Your task to perform on an android device: manage bookmarks in the chrome app Image 0: 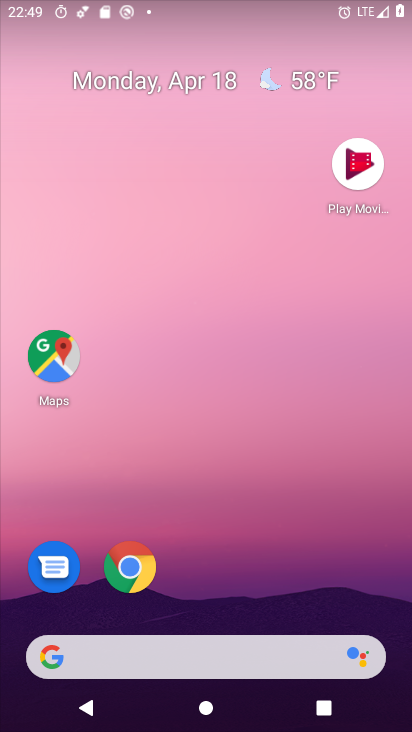
Step 0: click (219, 185)
Your task to perform on an android device: manage bookmarks in the chrome app Image 1: 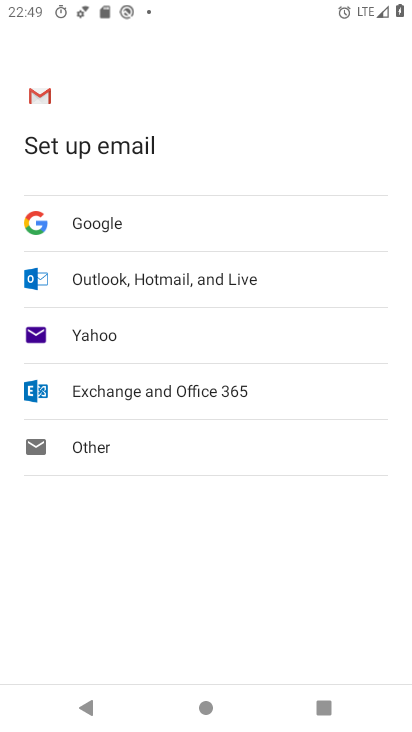
Step 1: press home button
Your task to perform on an android device: manage bookmarks in the chrome app Image 2: 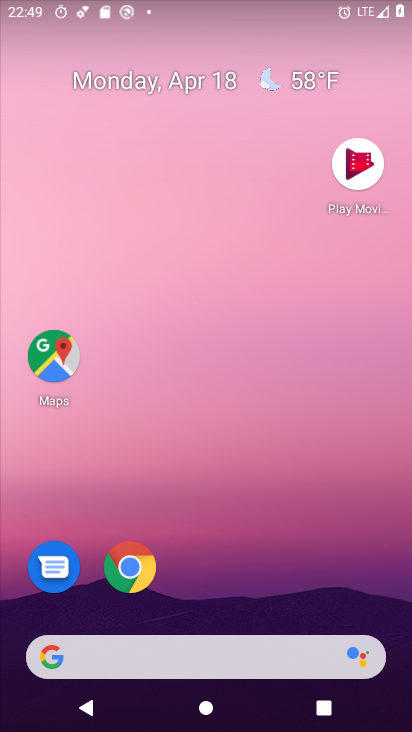
Step 2: drag from (183, 631) to (188, 163)
Your task to perform on an android device: manage bookmarks in the chrome app Image 3: 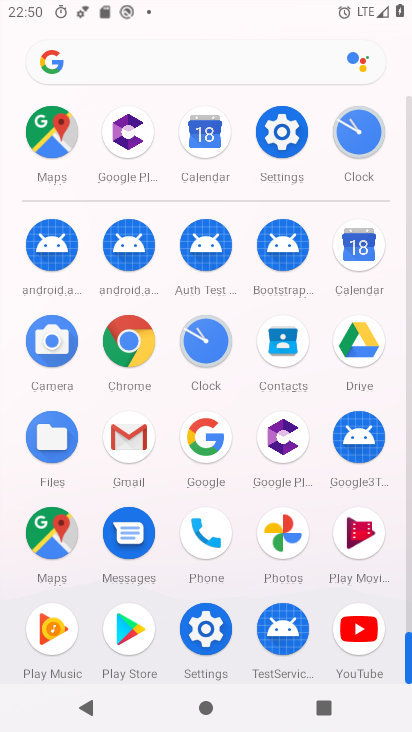
Step 3: click (127, 343)
Your task to perform on an android device: manage bookmarks in the chrome app Image 4: 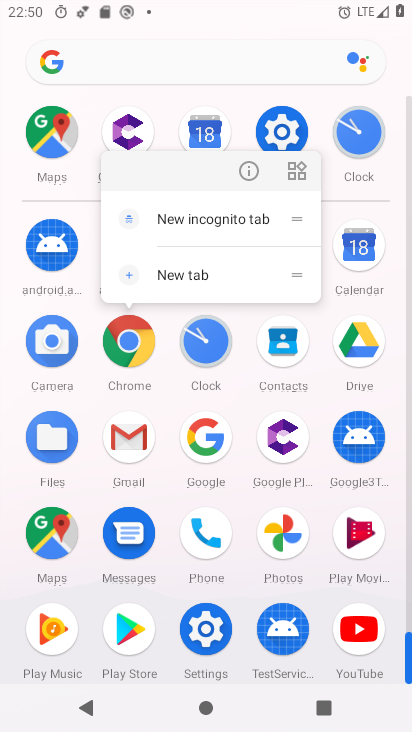
Step 4: click (247, 177)
Your task to perform on an android device: manage bookmarks in the chrome app Image 5: 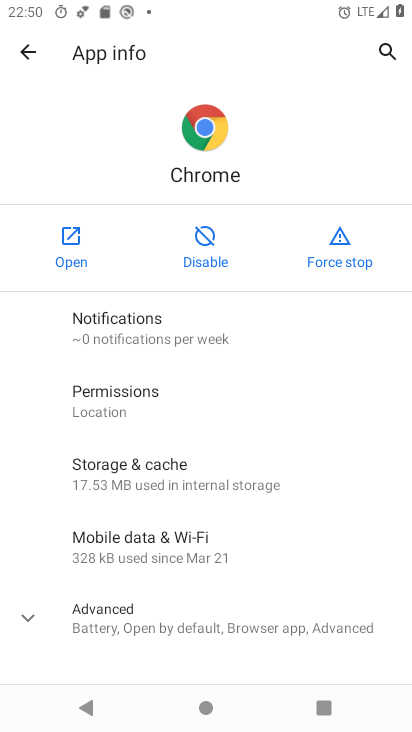
Step 5: click (74, 243)
Your task to perform on an android device: manage bookmarks in the chrome app Image 6: 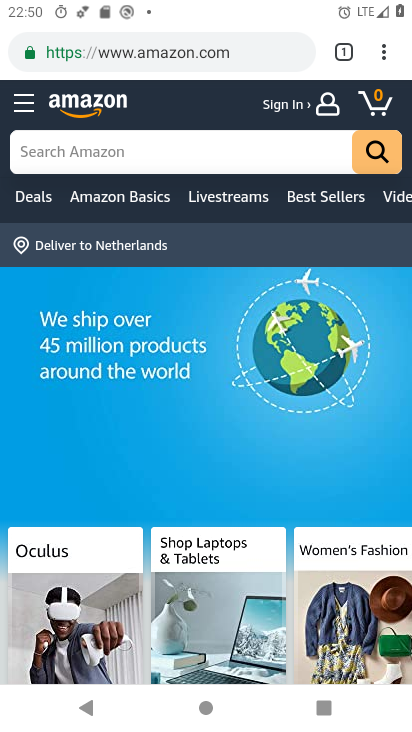
Step 6: drag from (216, 582) to (279, 68)
Your task to perform on an android device: manage bookmarks in the chrome app Image 7: 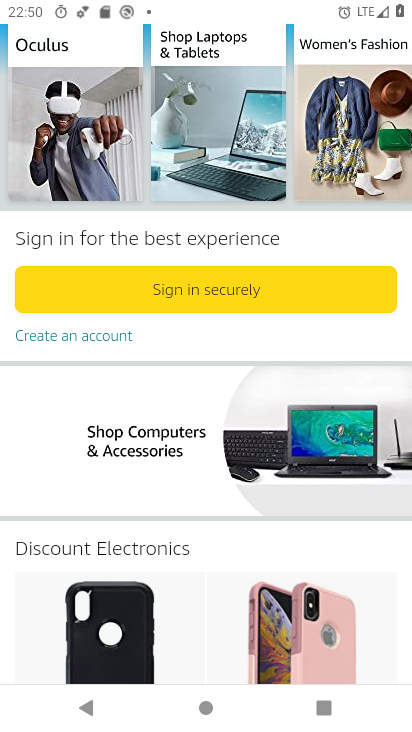
Step 7: drag from (208, 509) to (243, 89)
Your task to perform on an android device: manage bookmarks in the chrome app Image 8: 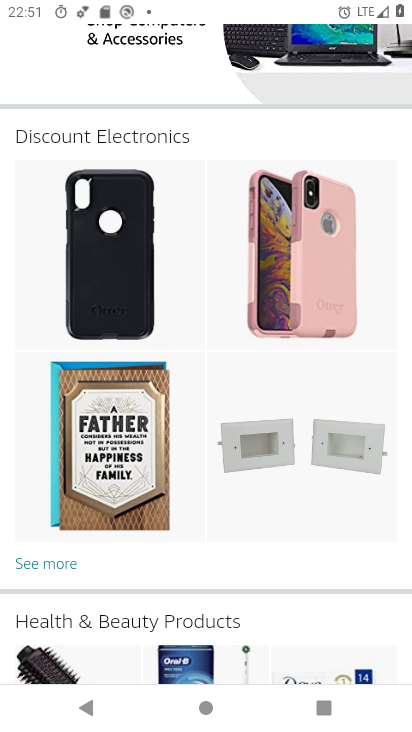
Step 8: drag from (217, 92) to (207, 649)
Your task to perform on an android device: manage bookmarks in the chrome app Image 9: 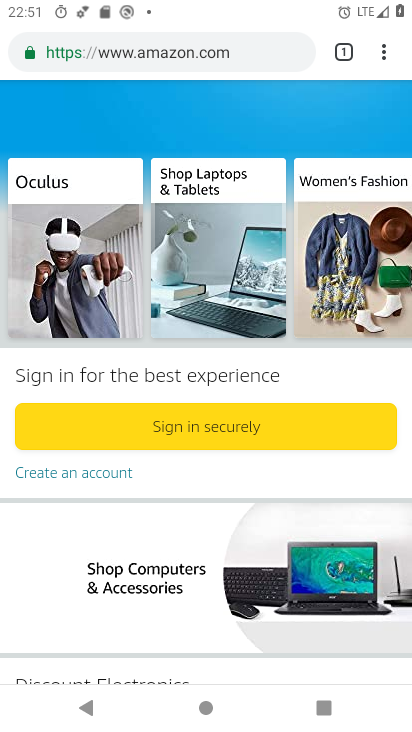
Step 9: drag from (254, 233) to (222, 566)
Your task to perform on an android device: manage bookmarks in the chrome app Image 10: 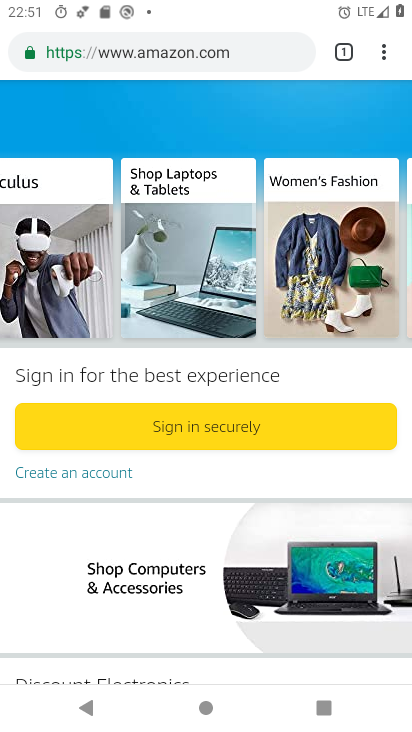
Step 10: click (378, 50)
Your task to perform on an android device: manage bookmarks in the chrome app Image 11: 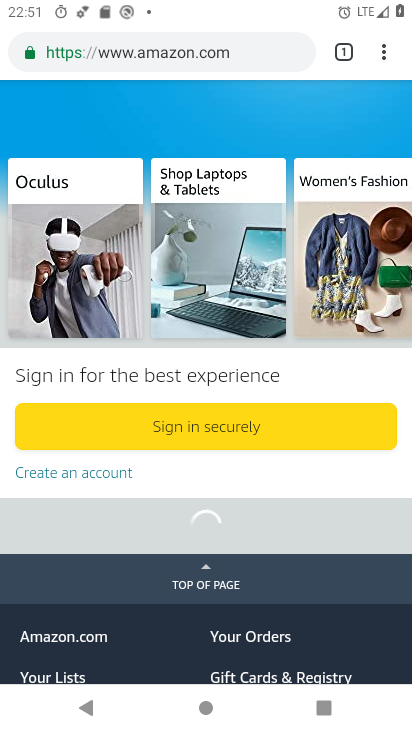
Step 11: click (380, 52)
Your task to perform on an android device: manage bookmarks in the chrome app Image 12: 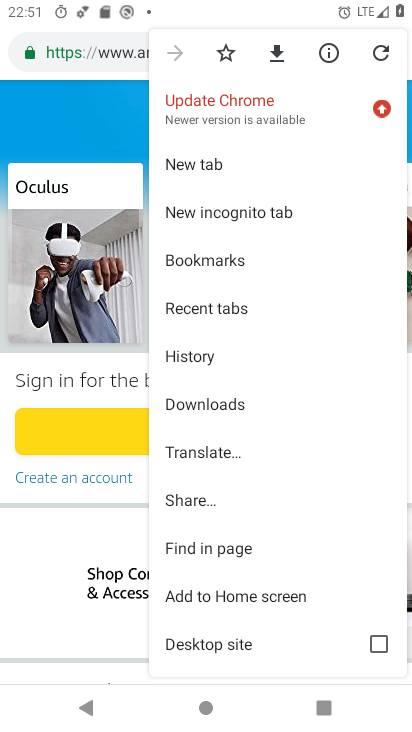
Step 12: drag from (249, 558) to (316, 224)
Your task to perform on an android device: manage bookmarks in the chrome app Image 13: 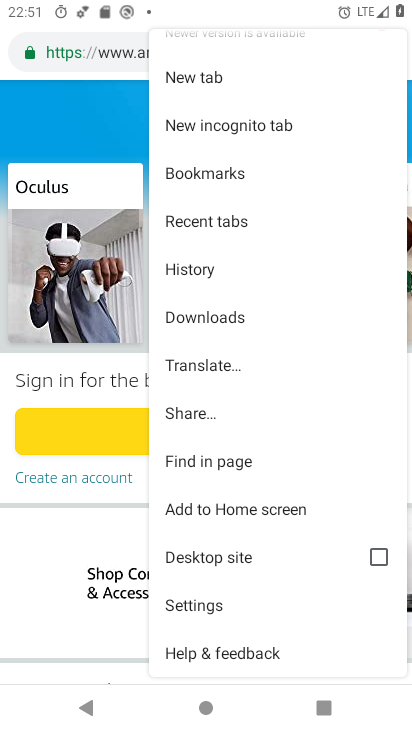
Step 13: click (269, 173)
Your task to perform on an android device: manage bookmarks in the chrome app Image 14: 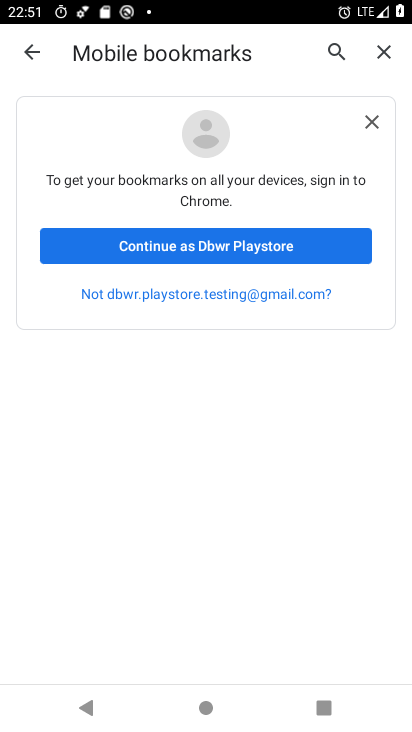
Step 14: click (371, 125)
Your task to perform on an android device: manage bookmarks in the chrome app Image 15: 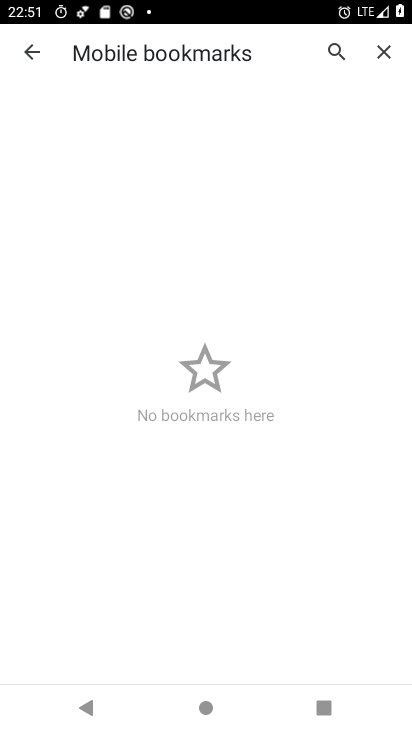
Step 15: drag from (203, 391) to (267, 134)
Your task to perform on an android device: manage bookmarks in the chrome app Image 16: 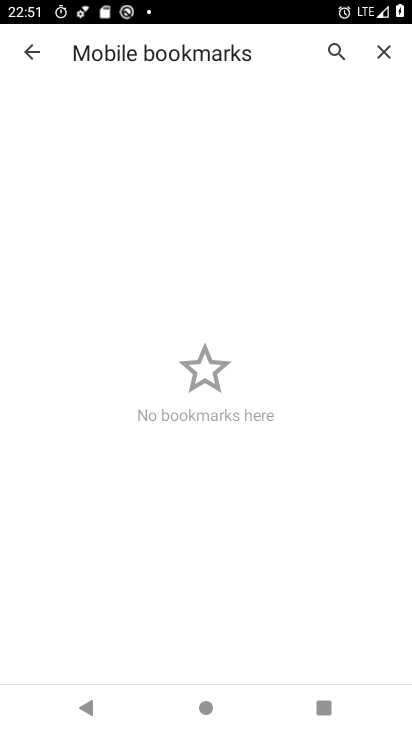
Step 16: drag from (230, 408) to (256, 204)
Your task to perform on an android device: manage bookmarks in the chrome app Image 17: 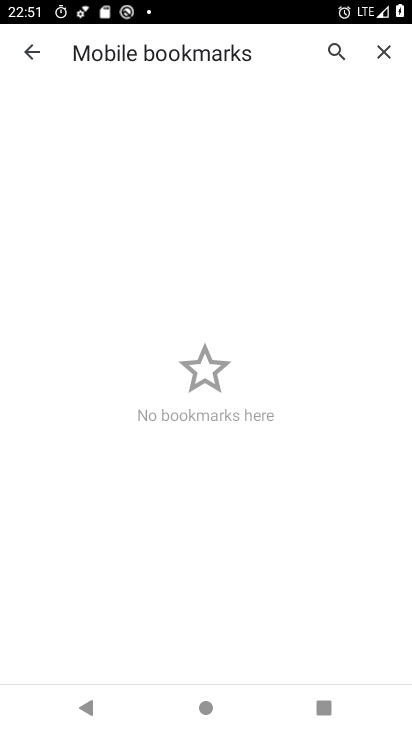
Step 17: click (265, 160)
Your task to perform on an android device: manage bookmarks in the chrome app Image 18: 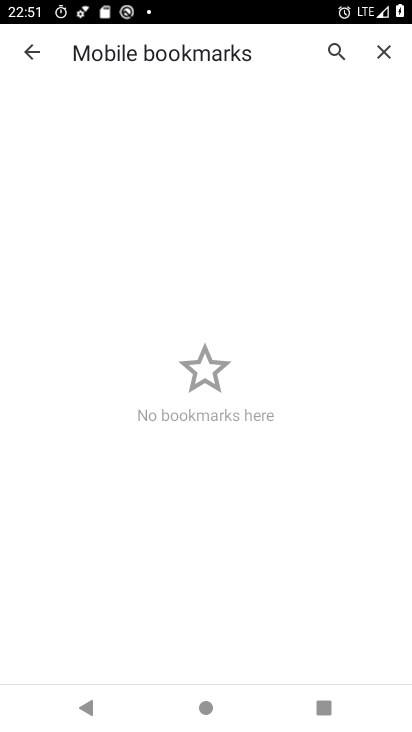
Step 18: task complete